Your task to perform on an android device: open a new tab in the chrome app Image 0: 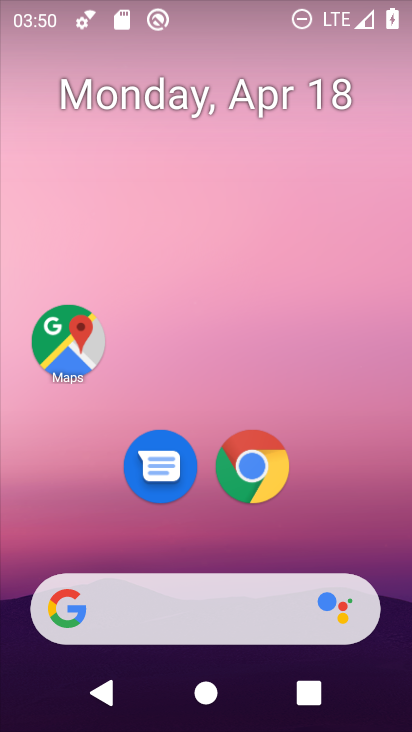
Step 0: click (276, 466)
Your task to perform on an android device: open a new tab in the chrome app Image 1: 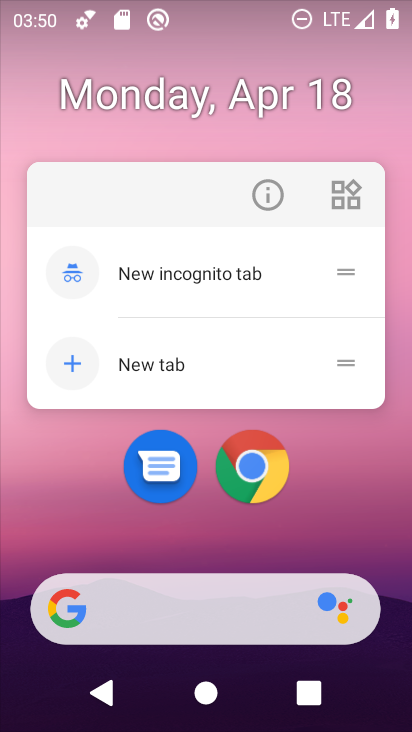
Step 1: click (262, 471)
Your task to perform on an android device: open a new tab in the chrome app Image 2: 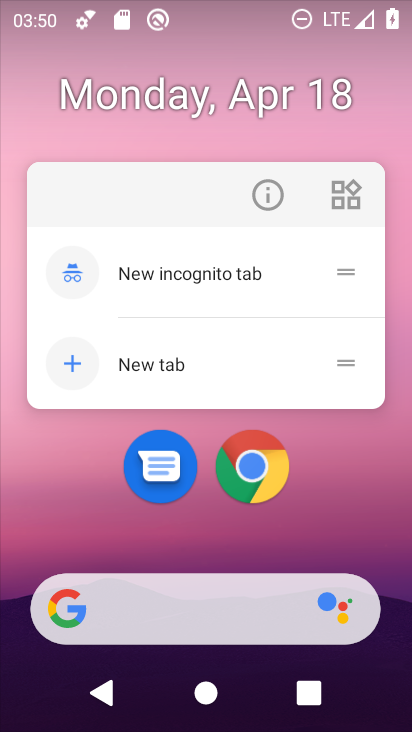
Step 2: click (262, 471)
Your task to perform on an android device: open a new tab in the chrome app Image 3: 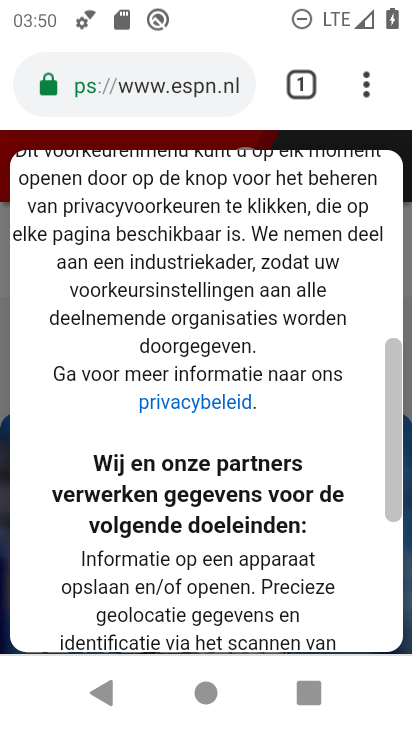
Step 3: click (293, 98)
Your task to perform on an android device: open a new tab in the chrome app Image 4: 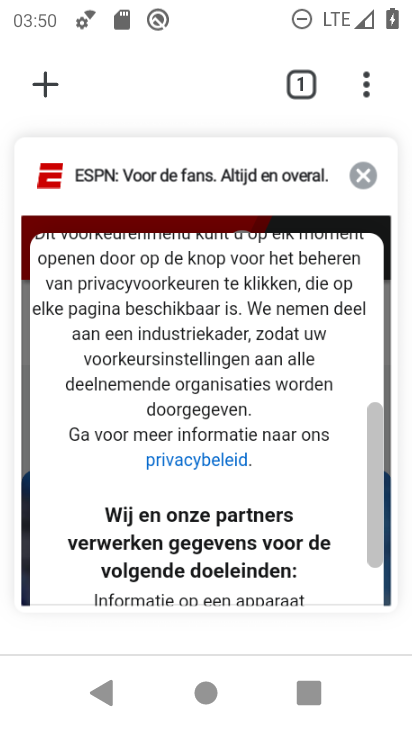
Step 4: click (34, 81)
Your task to perform on an android device: open a new tab in the chrome app Image 5: 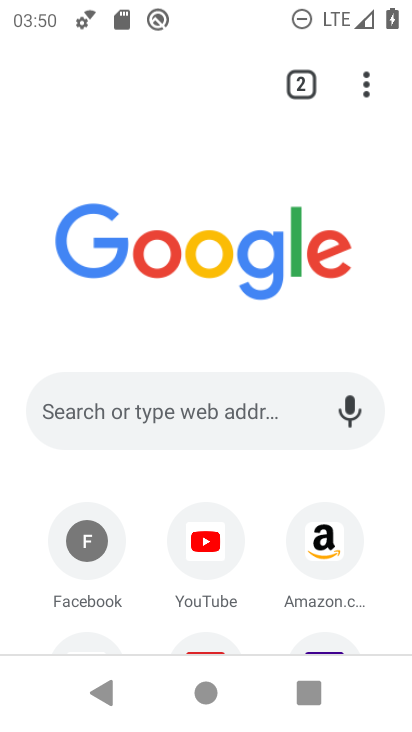
Step 5: task complete